Your task to perform on an android device: change the upload size in google photos Image 0: 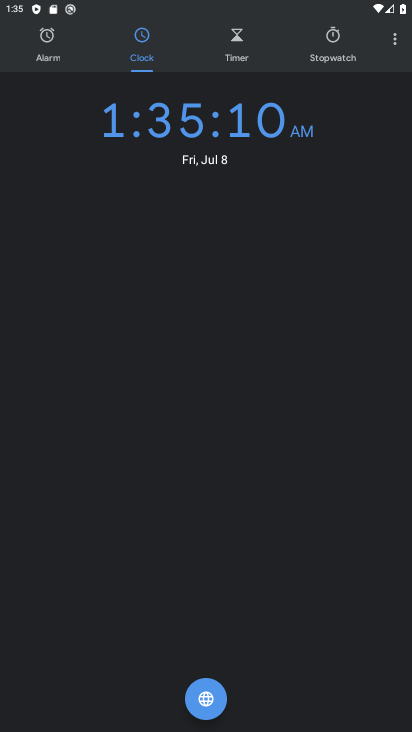
Step 0: press home button
Your task to perform on an android device: change the upload size in google photos Image 1: 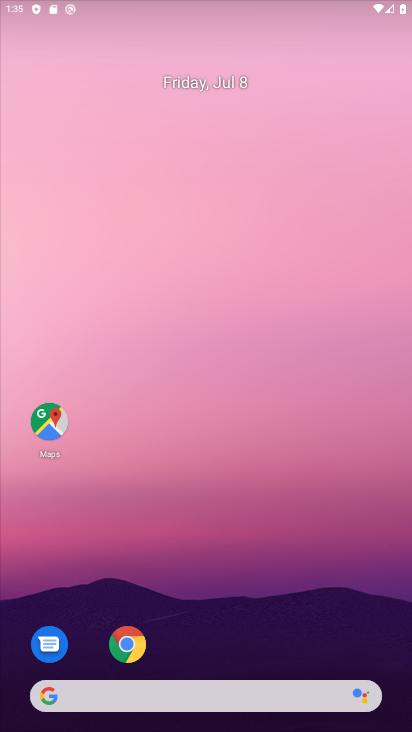
Step 1: drag from (181, 644) to (167, 111)
Your task to perform on an android device: change the upload size in google photos Image 2: 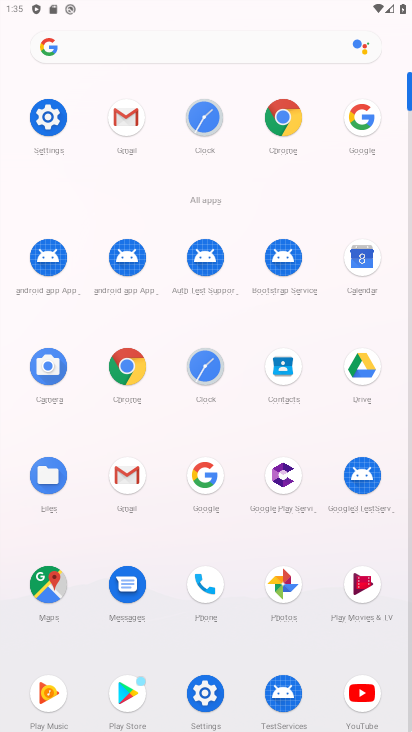
Step 2: click (283, 590)
Your task to perform on an android device: change the upload size in google photos Image 3: 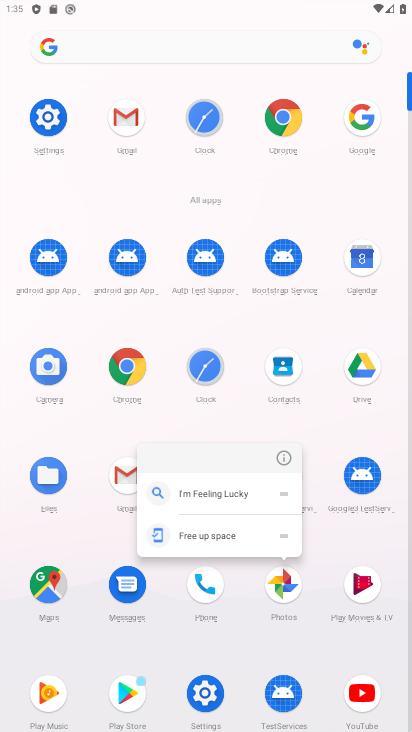
Step 3: click (283, 590)
Your task to perform on an android device: change the upload size in google photos Image 4: 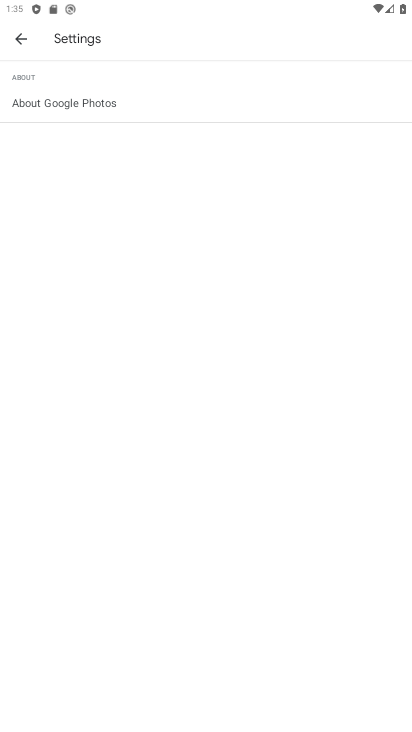
Step 4: press back button
Your task to perform on an android device: change the upload size in google photos Image 5: 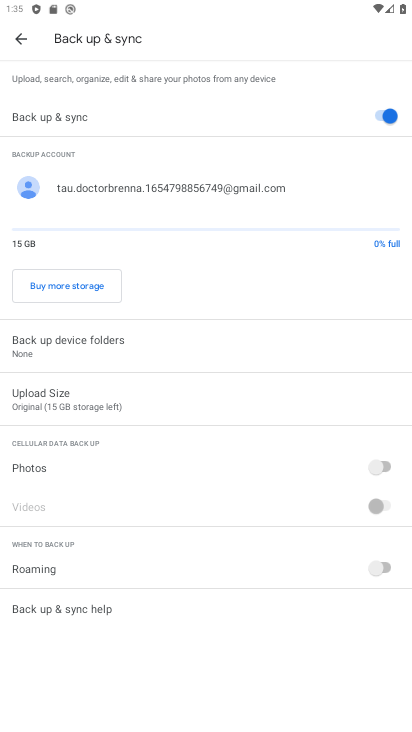
Step 5: click (83, 397)
Your task to perform on an android device: change the upload size in google photos Image 6: 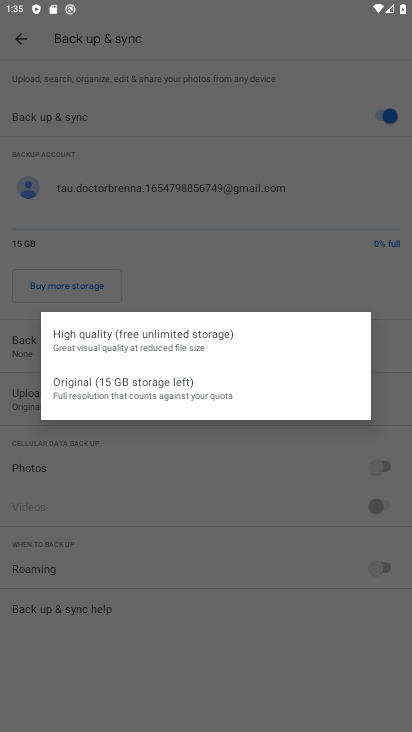
Step 6: click (103, 322)
Your task to perform on an android device: change the upload size in google photos Image 7: 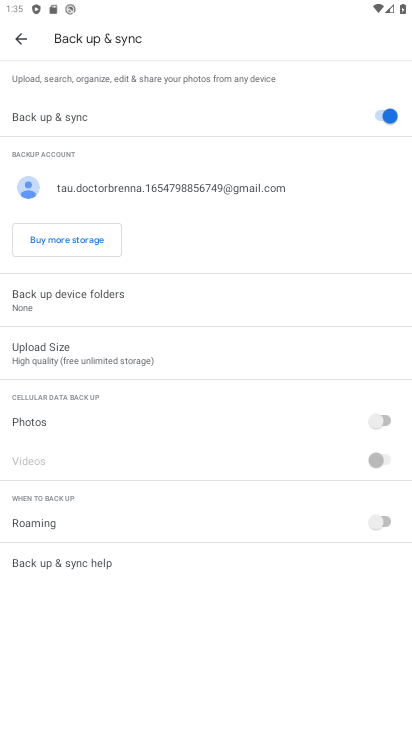
Step 7: task complete